Your task to perform on an android device: turn off location Image 0: 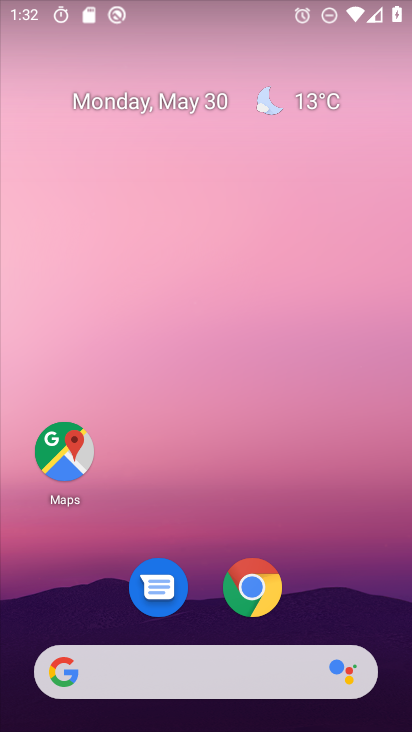
Step 0: drag from (358, 593) to (305, 192)
Your task to perform on an android device: turn off location Image 1: 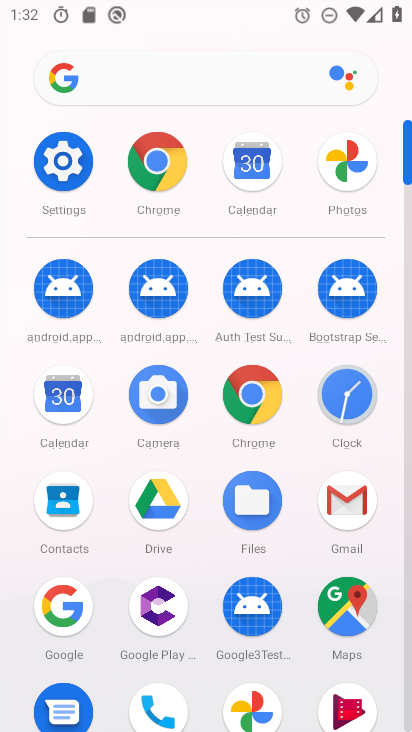
Step 1: click (73, 165)
Your task to perform on an android device: turn off location Image 2: 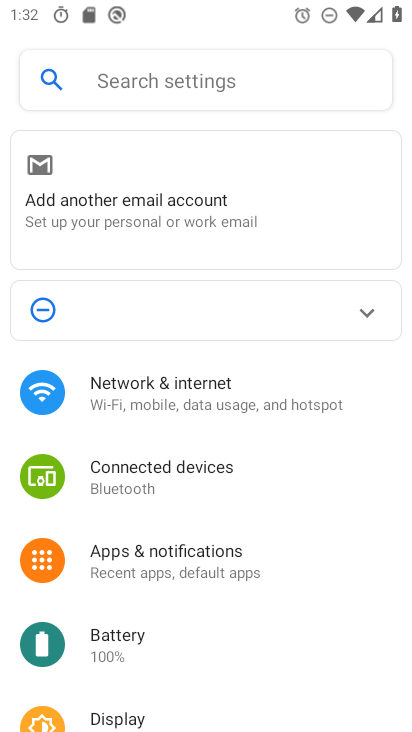
Step 2: drag from (218, 510) to (258, 161)
Your task to perform on an android device: turn off location Image 3: 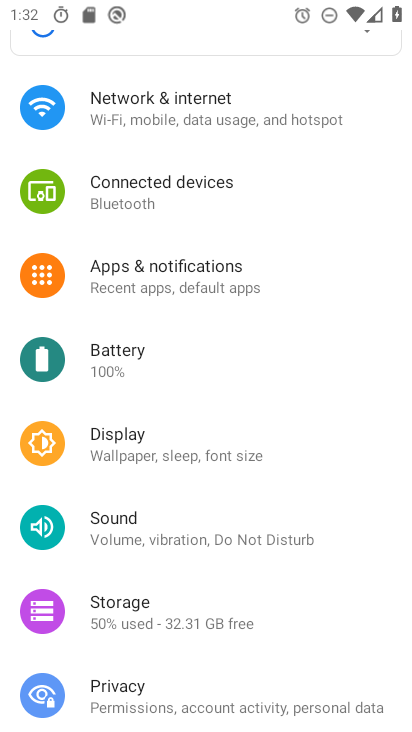
Step 3: drag from (215, 544) to (265, 186)
Your task to perform on an android device: turn off location Image 4: 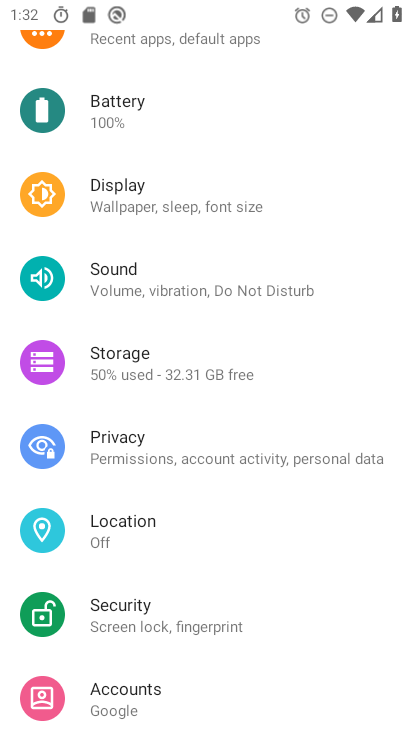
Step 4: click (122, 537)
Your task to perform on an android device: turn off location Image 5: 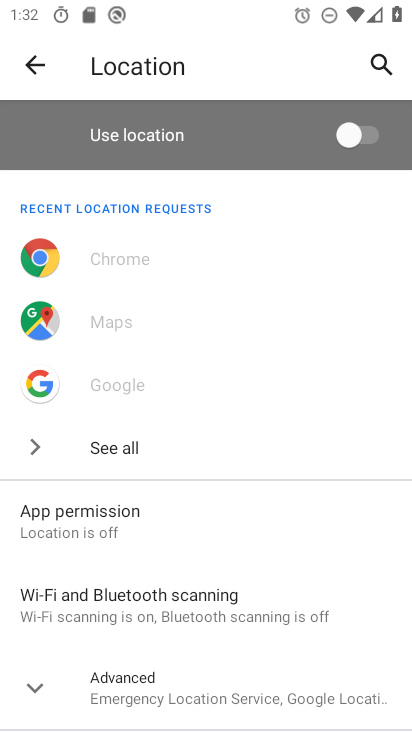
Step 5: task complete